Your task to perform on an android device: check the backup settings in the google photos Image 0: 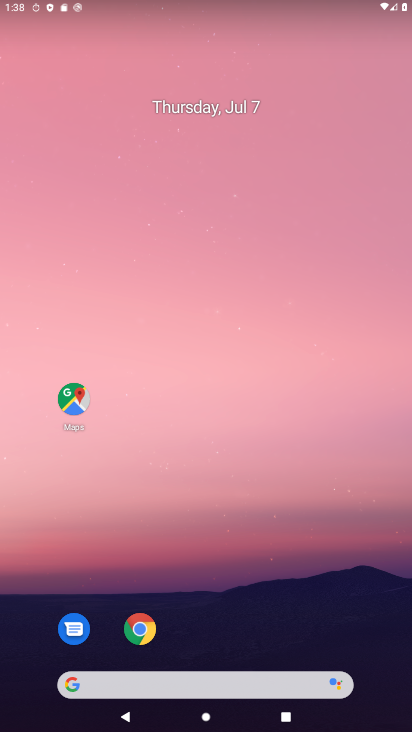
Step 0: drag from (287, 13) to (200, 45)
Your task to perform on an android device: check the backup settings in the google photos Image 1: 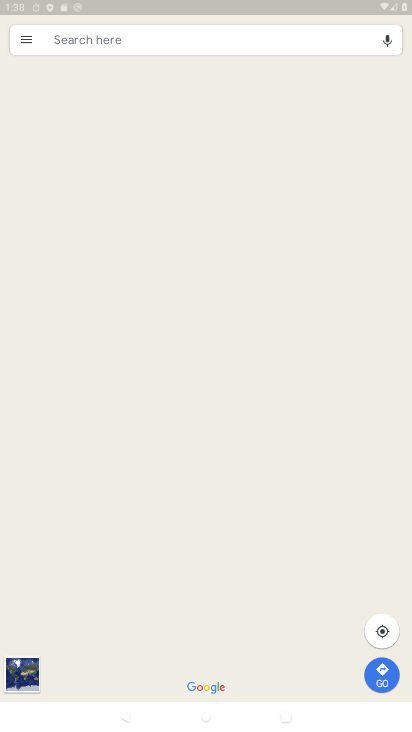
Step 1: press home button
Your task to perform on an android device: check the backup settings in the google photos Image 2: 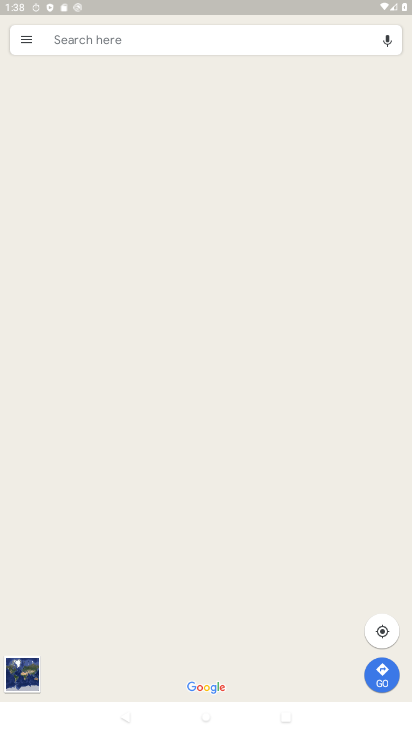
Step 2: drag from (221, 297) to (219, 4)
Your task to perform on an android device: check the backup settings in the google photos Image 3: 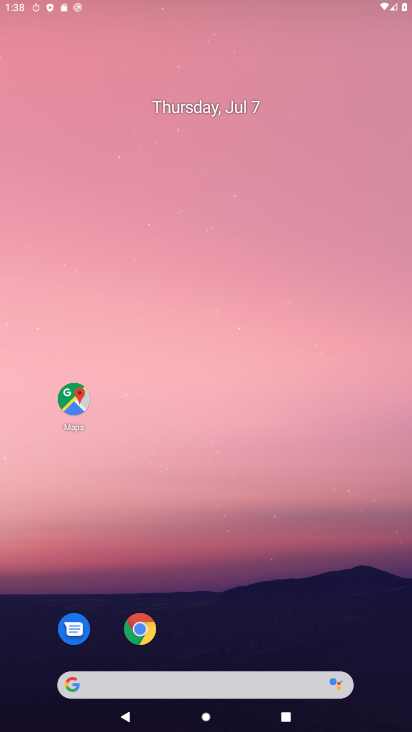
Step 3: drag from (215, 466) to (253, 17)
Your task to perform on an android device: check the backup settings in the google photos Image 4: 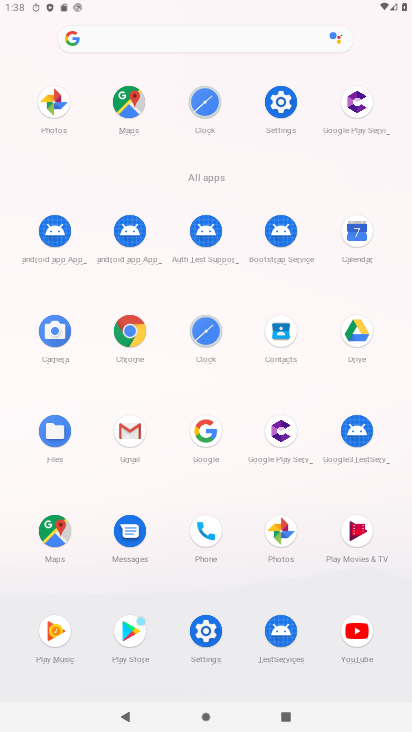
Step 4: click (262, 530)
Your task to perform on an android device: check the backup settings in the google photos Image 5: 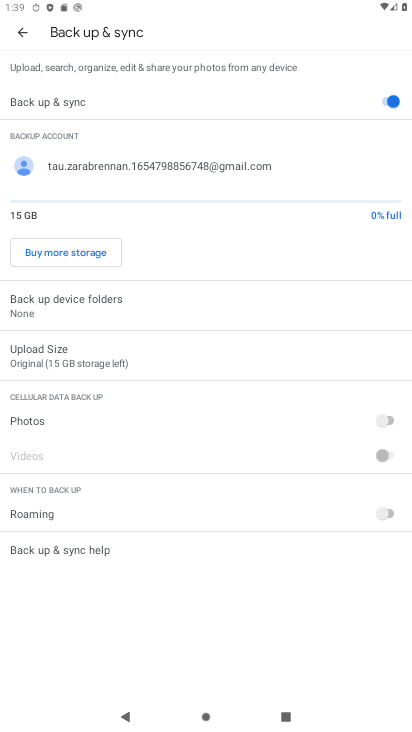
Step 5: task complete